Your task to perform on an android device: Open Google Chrome and open the bookmarks view Image 0: 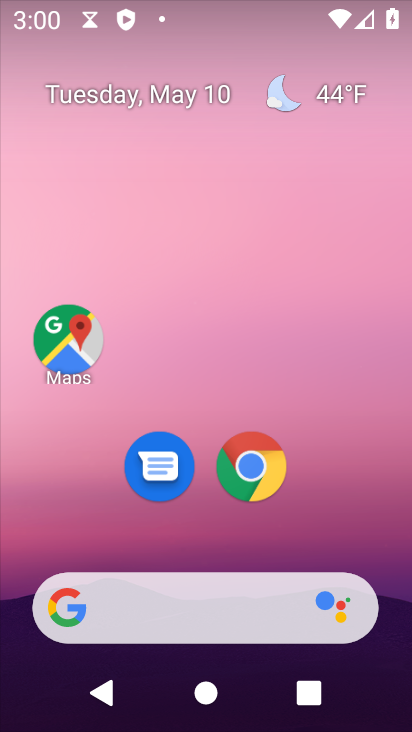
Step 0: click (248, 464)
Your task to perform on an android device: Open Google Chrome and open the bookmarks view Image 1: 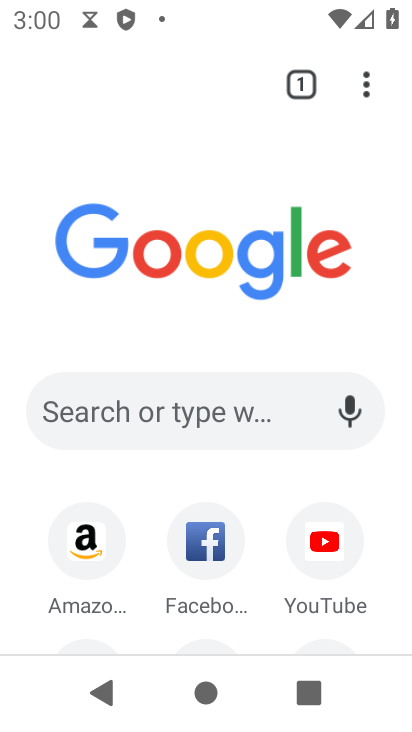
Step 1: click (368, 82)
Your task to perform on an android device: Open Google Chrome and open the bookmarks view Image 2: 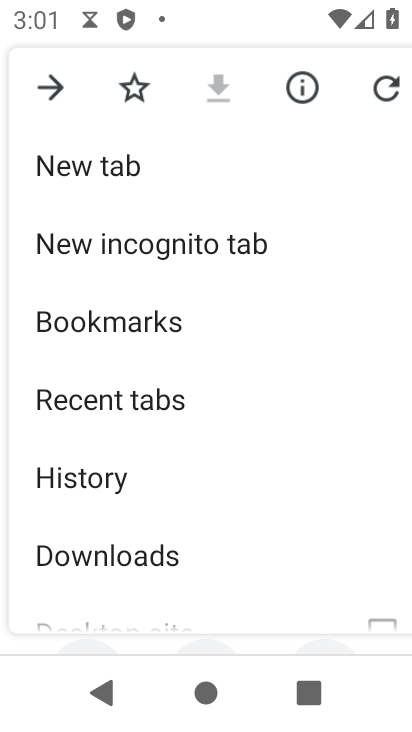
Step 2: click (116, 330)
Your task to perform on an android device: Open Google Chrome and open the bookmarks view Image 3: 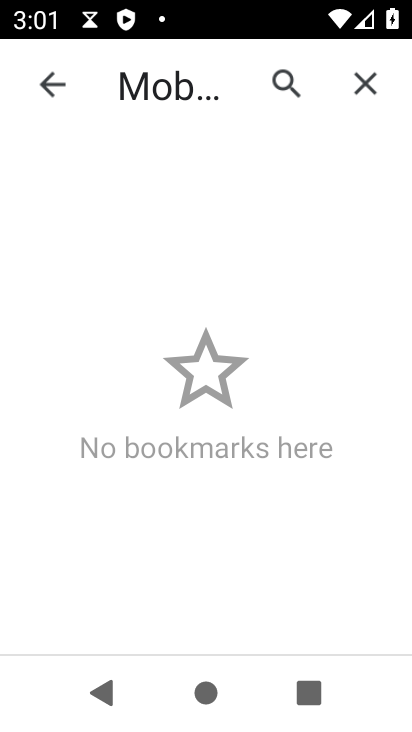
Step 3: task complete